Your task to perform on an android device: turn off location history Image 0: 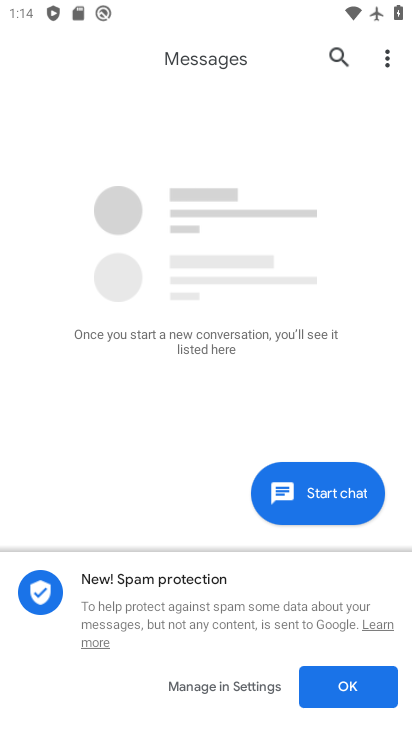
Step 0: press home button
Your task to perform on an android device: turn off location history Image 1: 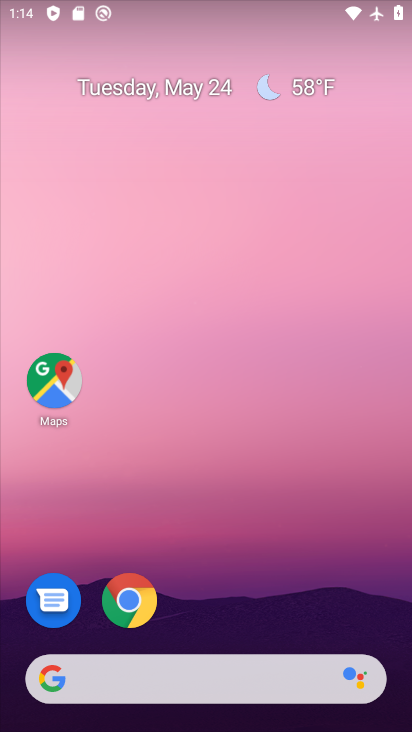
Step 1: drag from (296, 576) to (207, 74)
Your task to perform on an android device: turn off location history Image 2: 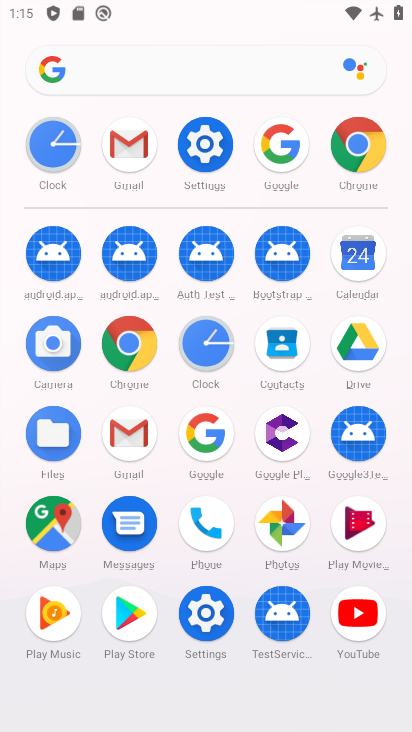
Step 2: click (210, 145)
Your task to perform on an android device: turn off location history Image 3: 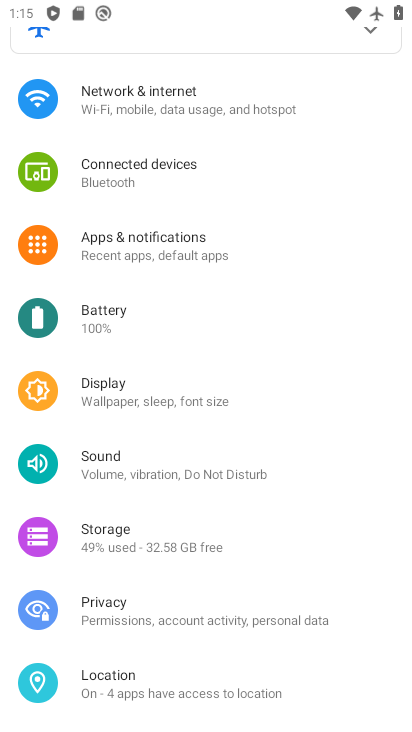
Step 3: click (202, 675)
Your task to perform on an android device: turn off location history Image 4: 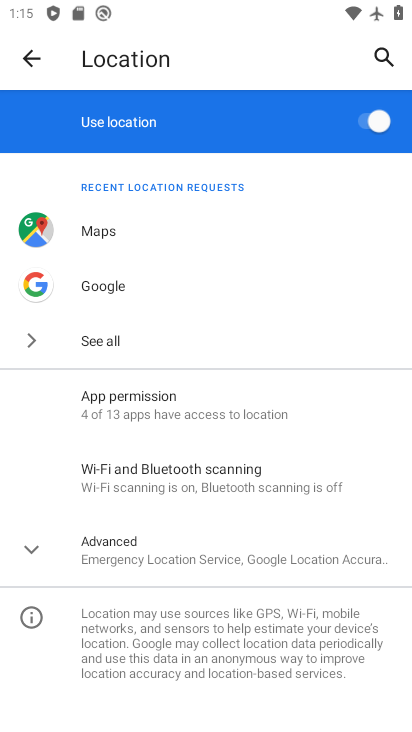
Step 4: click (191, 555)
Your task to perform on an android device: turn off location history Image 5: 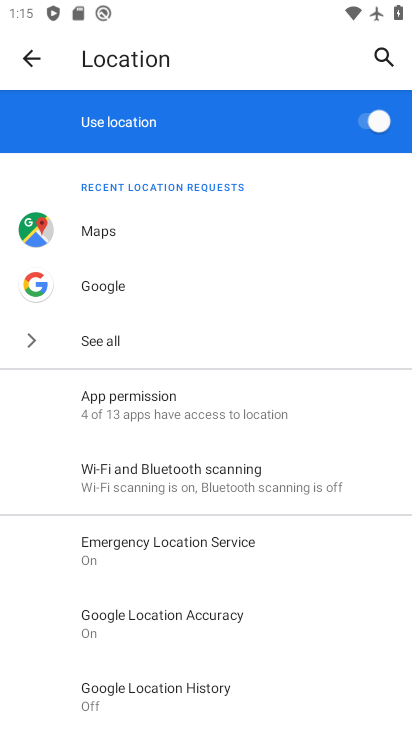
Step 5: click (215, 697)
Your task to perform on an android device: turn off location history Image 6: 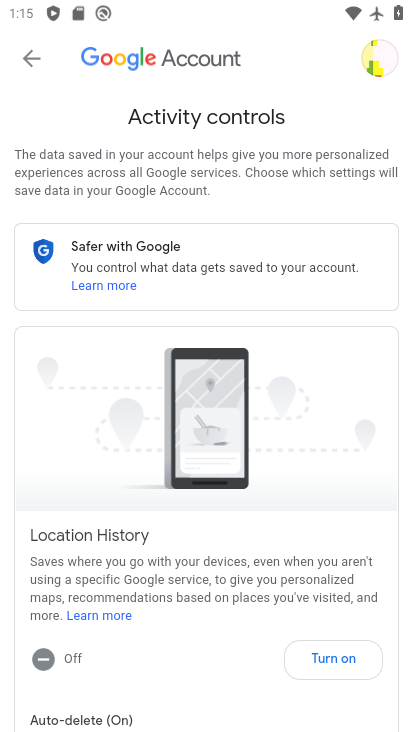
Step 6: task complete